Your task to perform on an android device: Open Yahoo.com Image 0: 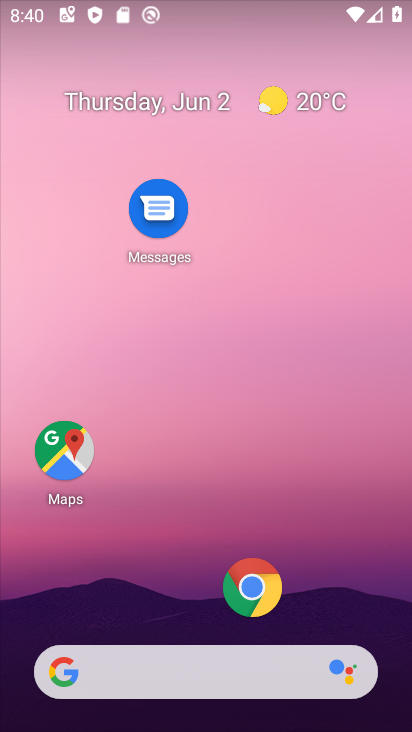
Step 0: click (253, 576)
Your task to perform on an android device: Open Yahoo.com Image 1: 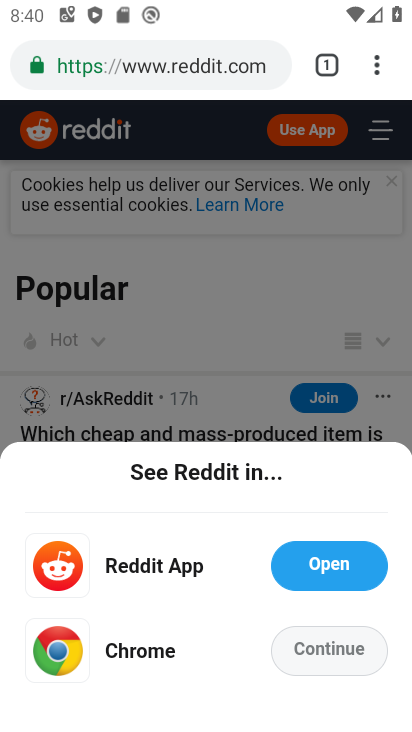
Step 1: click (335, 52)
Your task to perform on an android device: Open Yahoo.com Image 2: 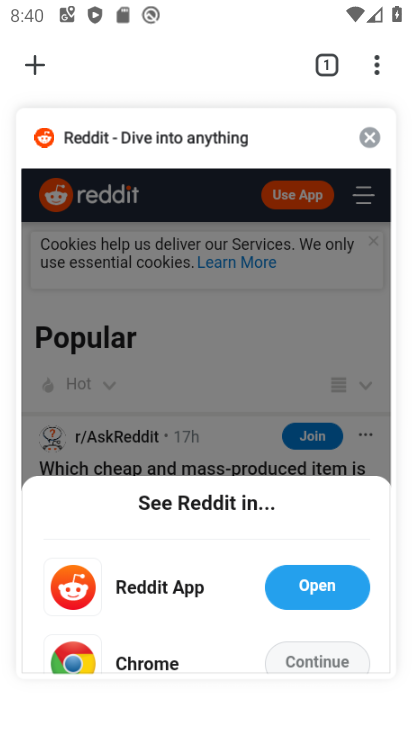
Step 2: click (26, 63)
Your task to perform on an android device: Open Yahoo.com Image 3: 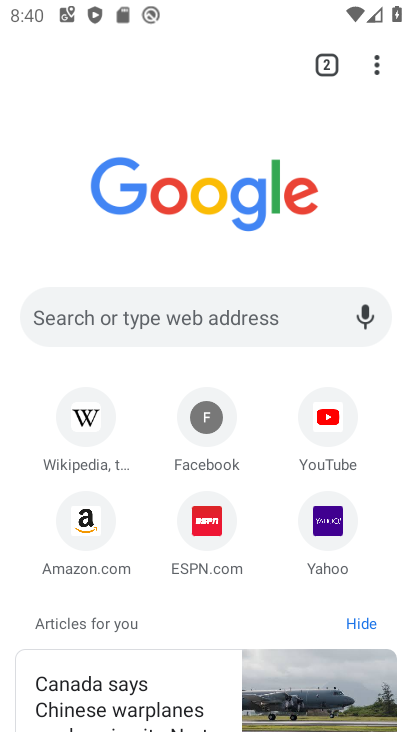
Step 3: click (320, 514)
Your task to perform on an android device: Open Yahoo.com Image 4: 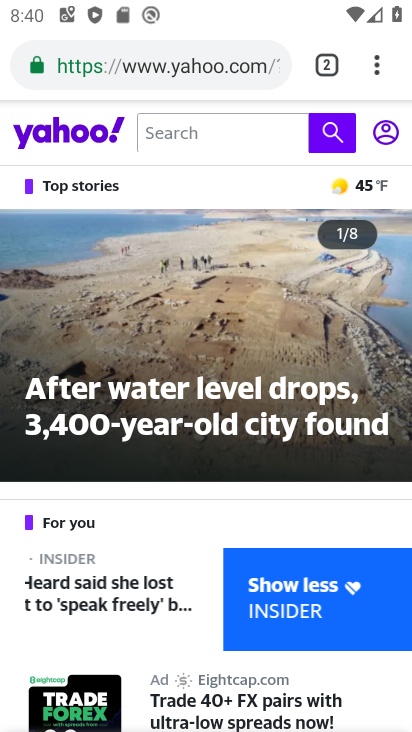
Step 4: task complete